Your task to perform on an android device: turn off airplane mode Image 0: 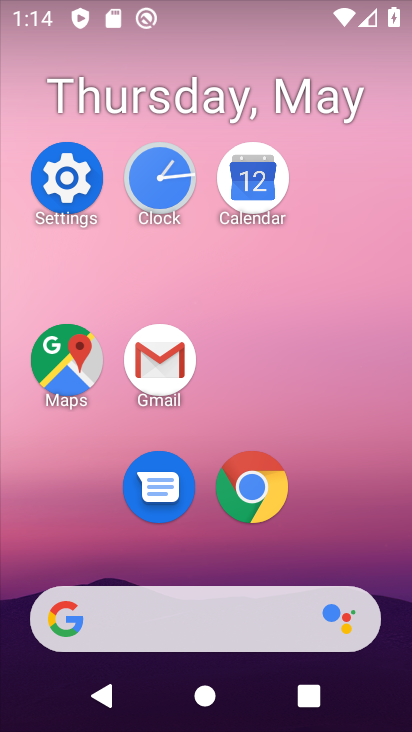
Step 0: click (83, 183)
Your task to perform on an android device: turn off airplane mode Image 1: 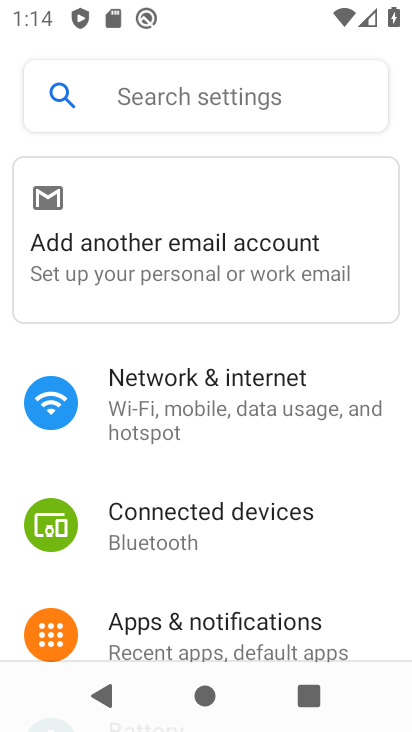
Step 1: click (255, 413)
Your task to perform on an android device: turn off airplane mode Image 2: 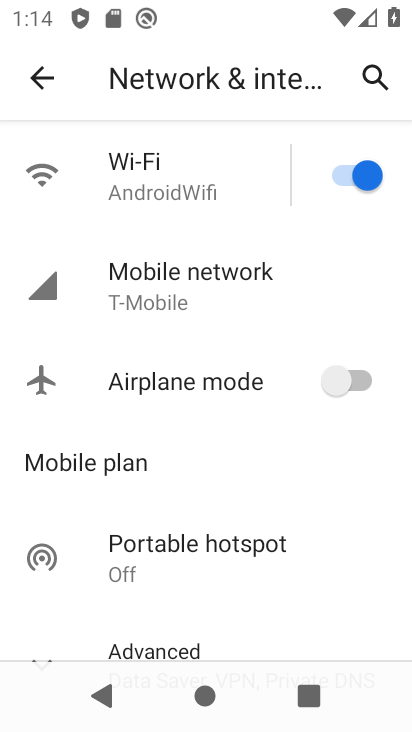
Step 2: task complete